Your task to perform on an android device: uninstall "Google Play services" Image 0: 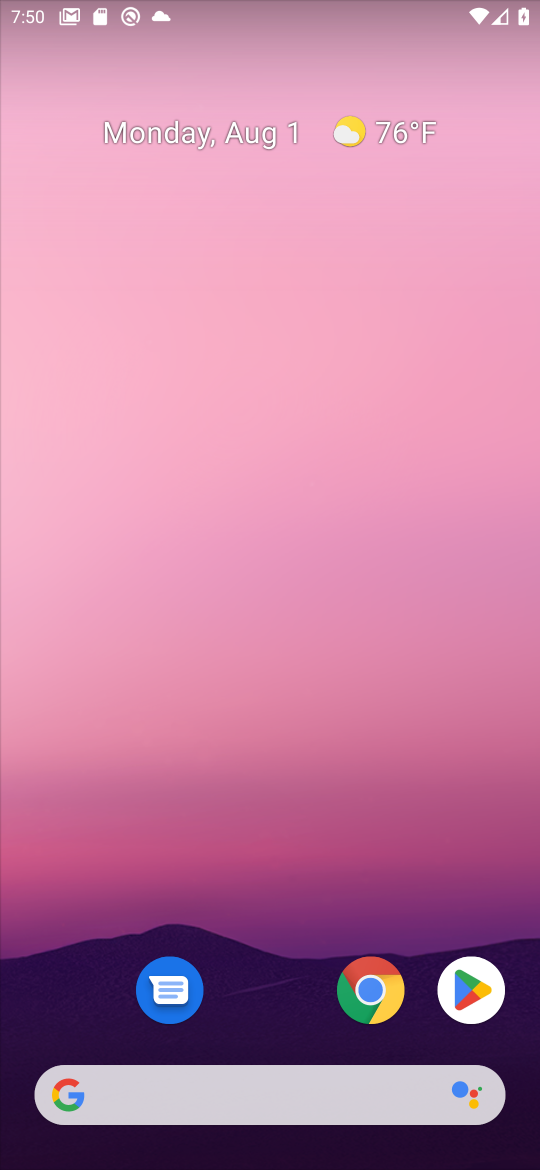
Step 0: press home button
Your task to perform on an android device: uninstall "Google Play services" Image 1: 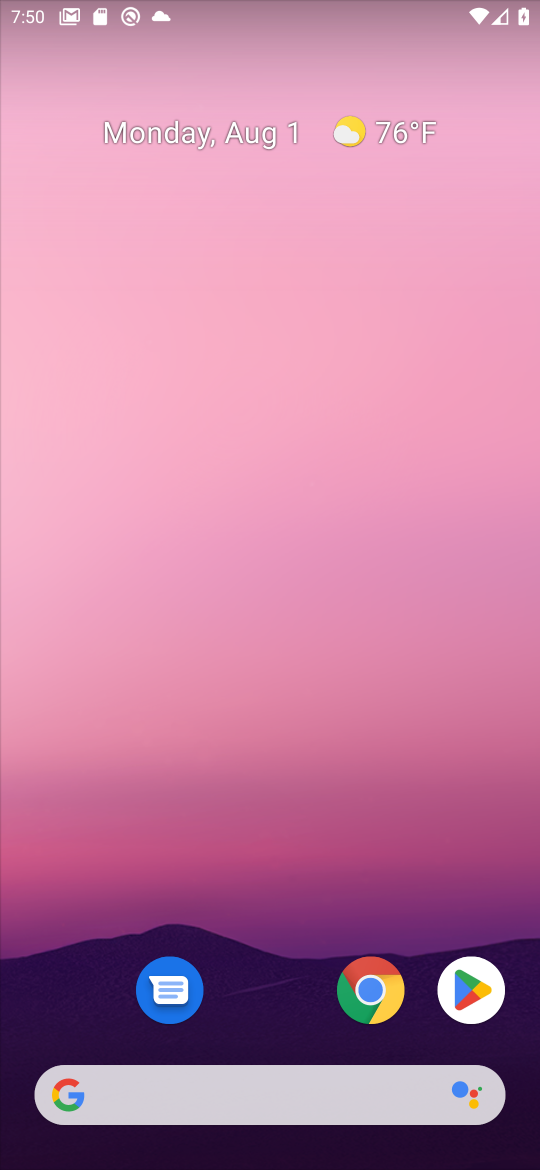
Step 1: click (475, 1012)
Your task to perform on an android device: uninstall "Google Play services" Image 2: 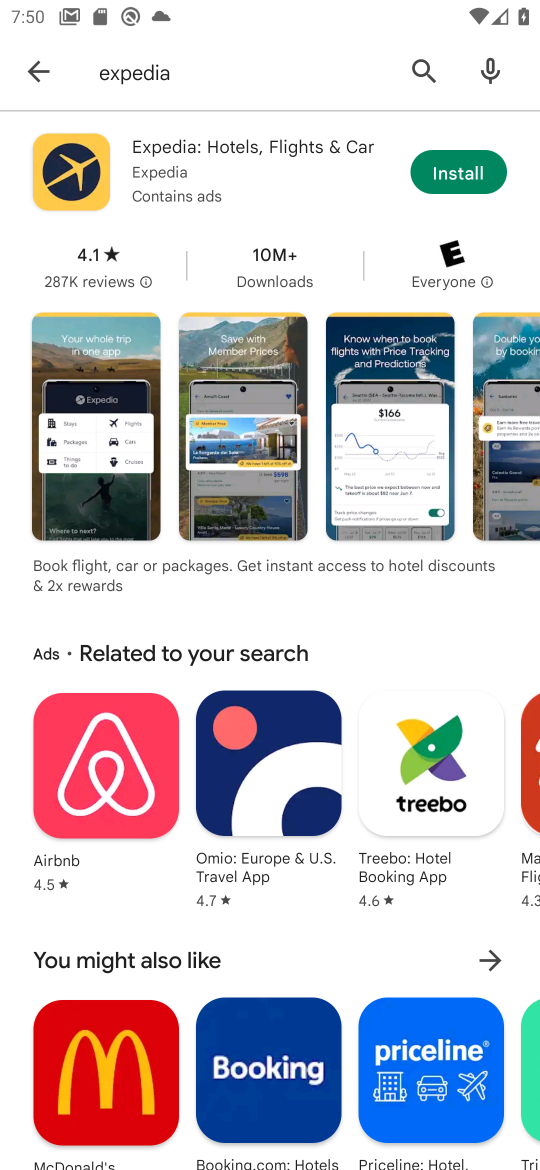
Step 2: click (419, 74)
Your task to perform on an android device: uninstall "Google Play services" Image 3: 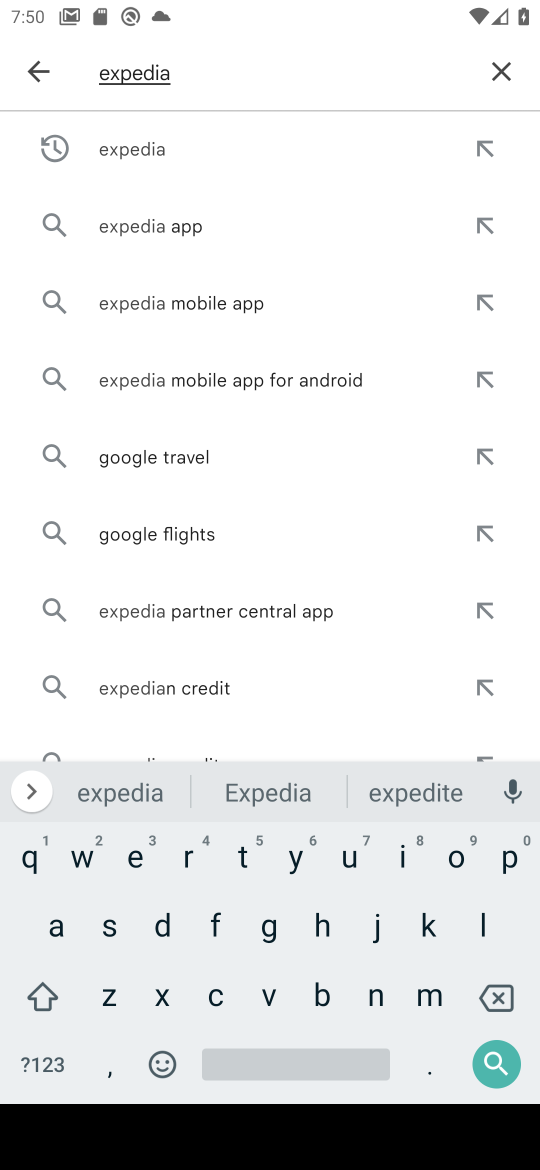
Step 3: click (498, 81)
Your task to perform on an android device: uninstall "Google Play services" Image 4: 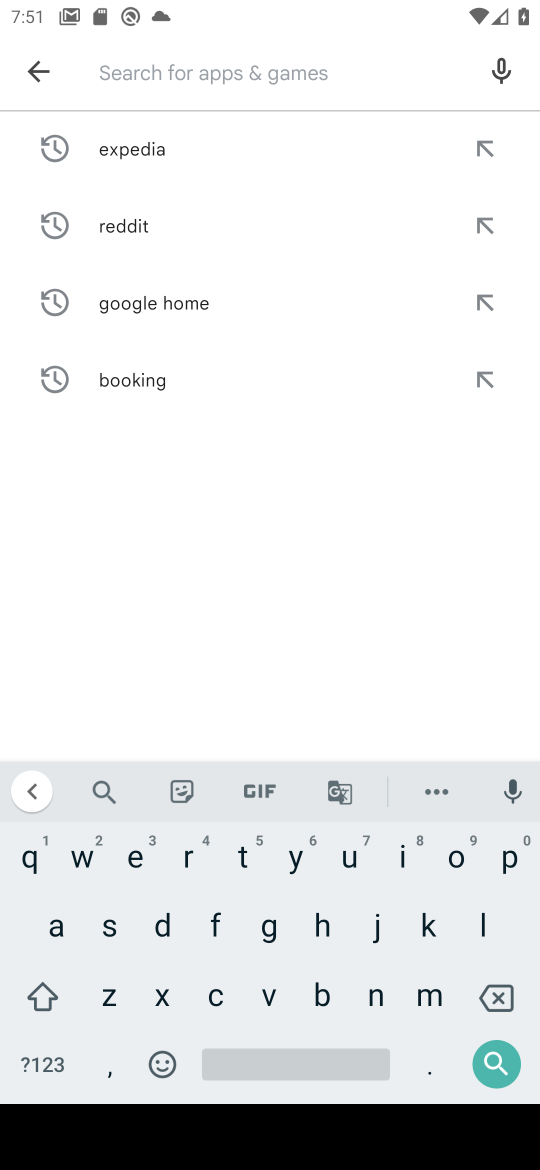
Step 4: type "google play services"
Your task to perform on an android device: uninstall "Google Play services" Image 5: 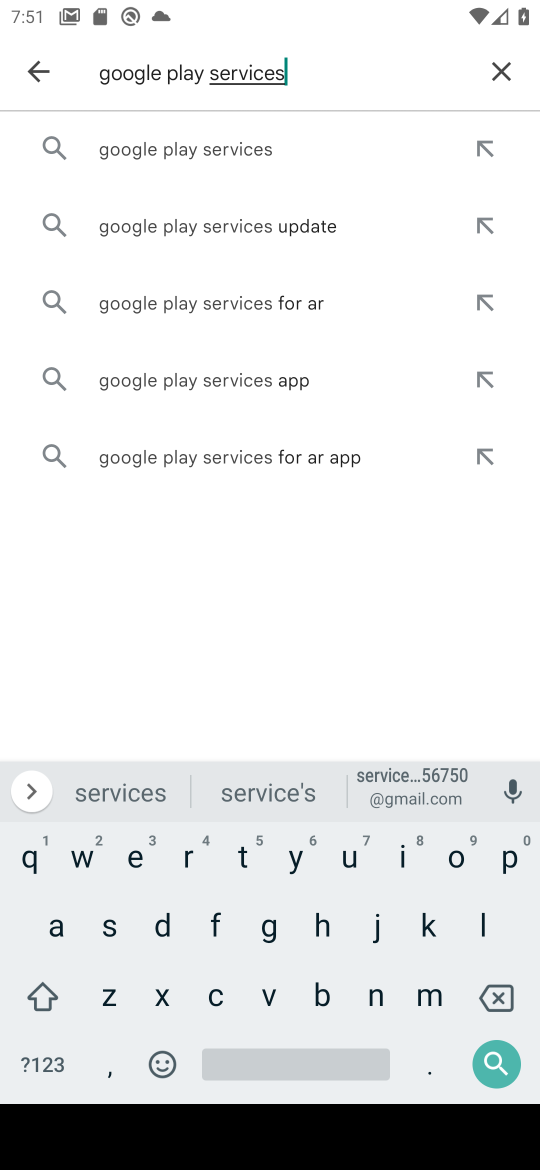
Step 5: click (230, 155)
Your task to perform on an android device: uninstall "Google Play services" Image 6: 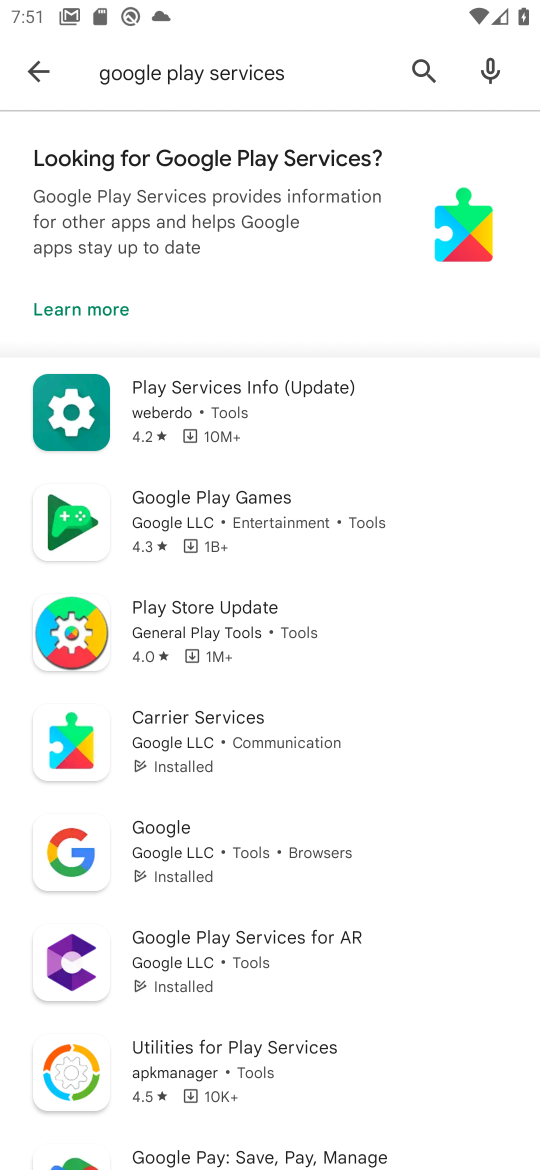
Step 6: click (248, 447)
Your task to perform on an android device: uninstall "Google Play services" Image 7: 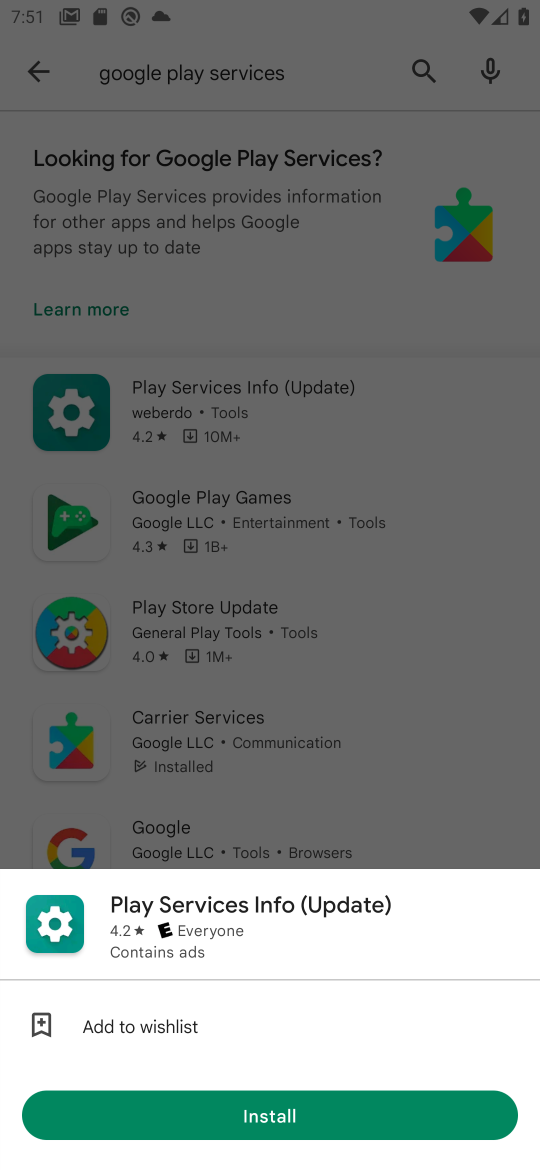
Step 7: click (248, 447)
Your task to perform on an android device: uninstall "Google Play services" Image 8: 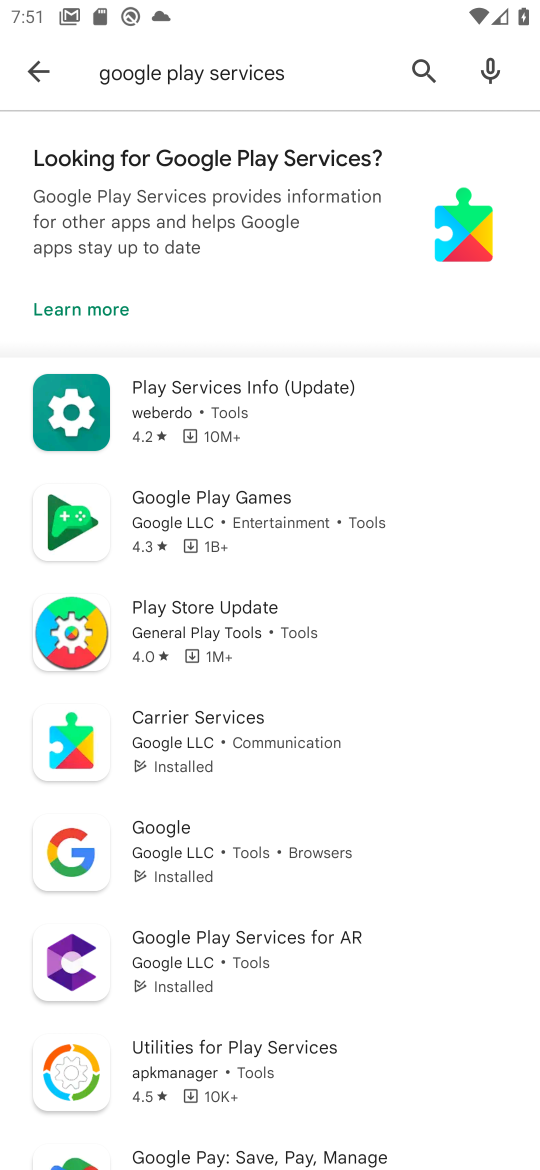
Step 8: click (227, 429)
Your task to perform on an android device: uninstall "Google Play services" Image 9: 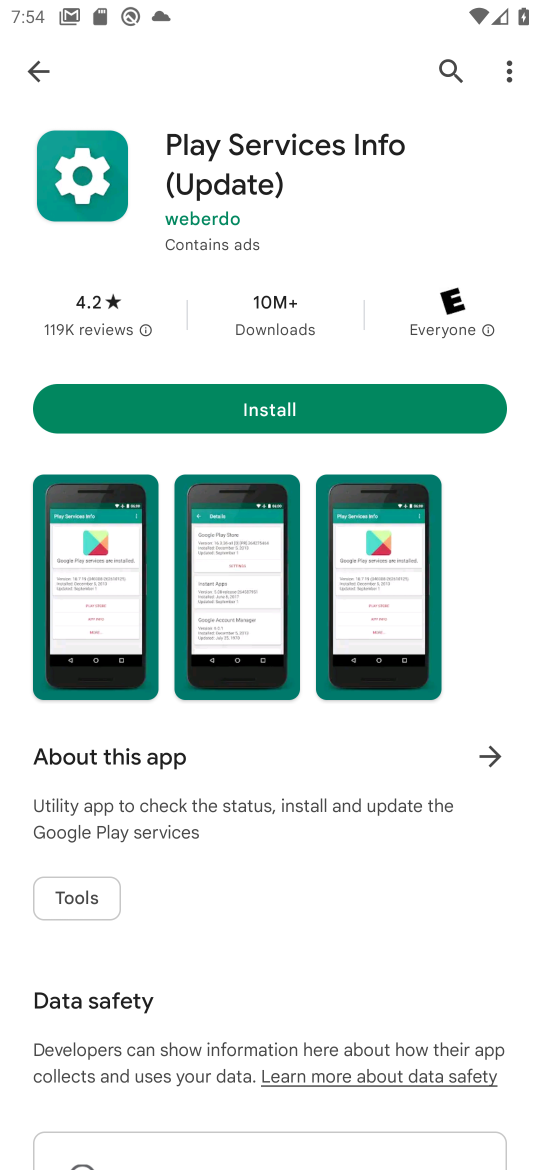
Step 9: task complete